Your task to perform on an android device: Search for Mexican restaurants on Maps Image 0: 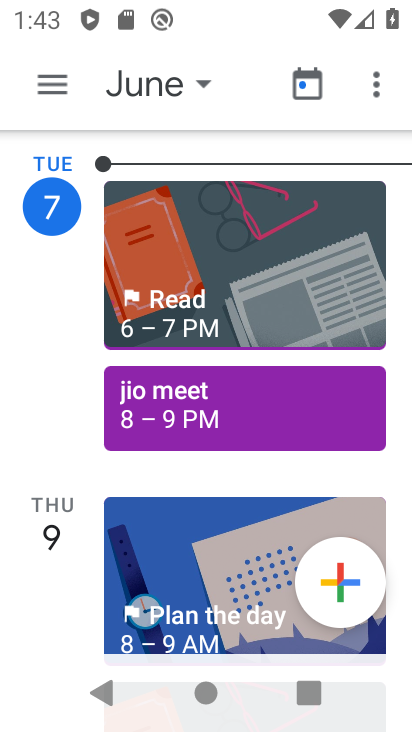
Step 0: press home button
Your task to perform on an android device: Search for Mexican restaurants on Maps Image 1: 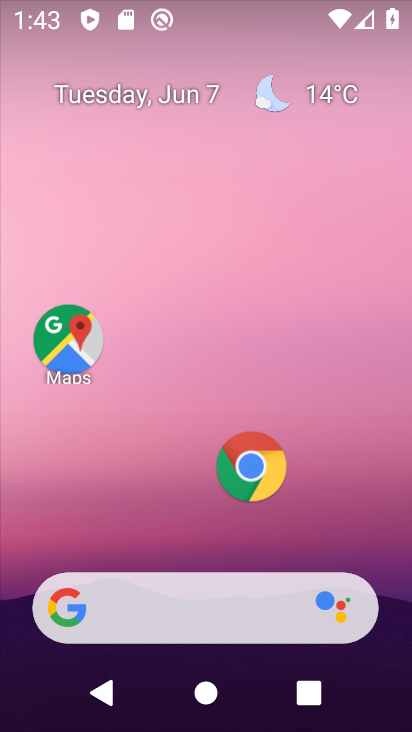
Step 1: click (84, 345)
Your task to perform on an android device: Search for Mexican restaurants on Maps Image 2: 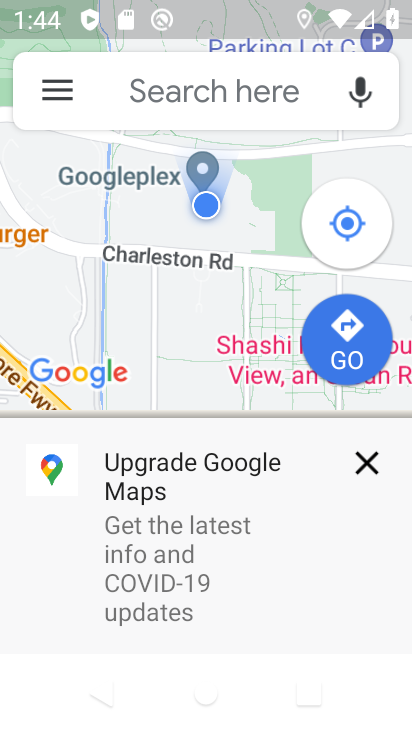
Step 2: click (375, 468)
Your task to perform on an android device: Search for Mexican restaurants on Maps Image 3: 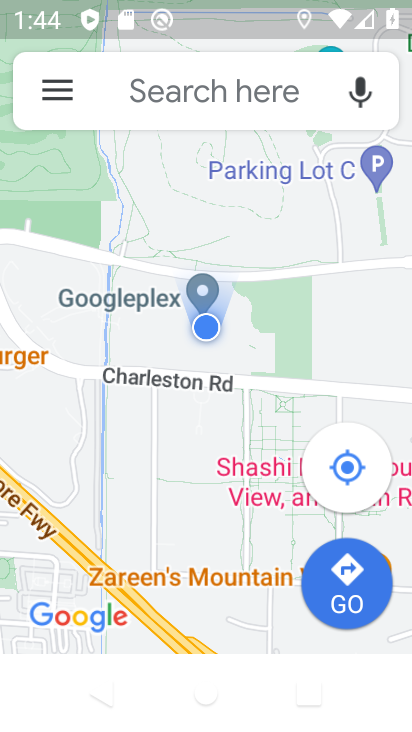
Step 3: click (212, 84)
Your task to perform on an android device: Search for Mexican restaurants on Maps Image 4: 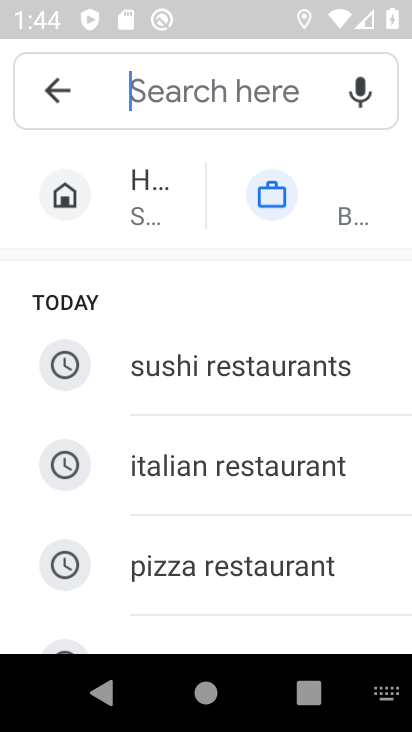
Step 4: drag from (242, 591) to (242, 326)
Your task to perform on an android device: Search for Mexican restaurants on Maps Image 5: 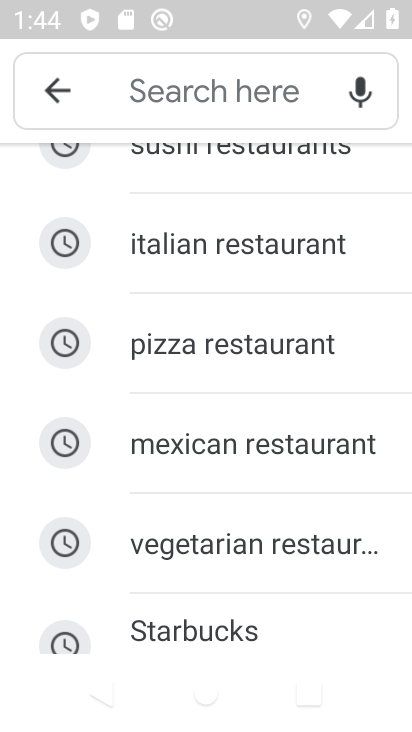
Step 5: click (241, 458)
Your task to perform on an android device: Search for Mexican restaurants on Maps Image 6: 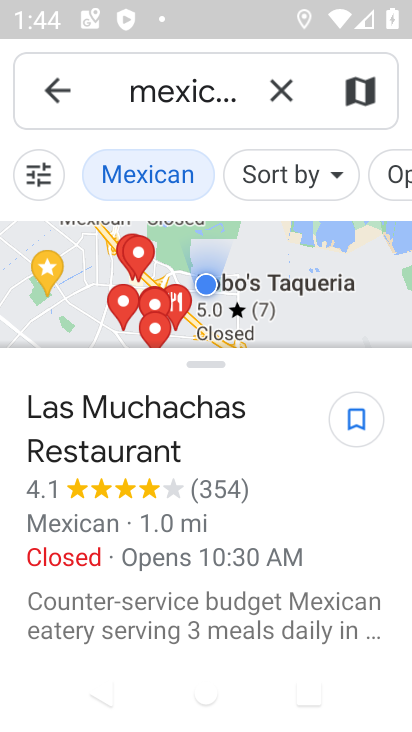
Step 6: task complete